Your task to perform on an android device: snooze an email in the gmail app Image 0: 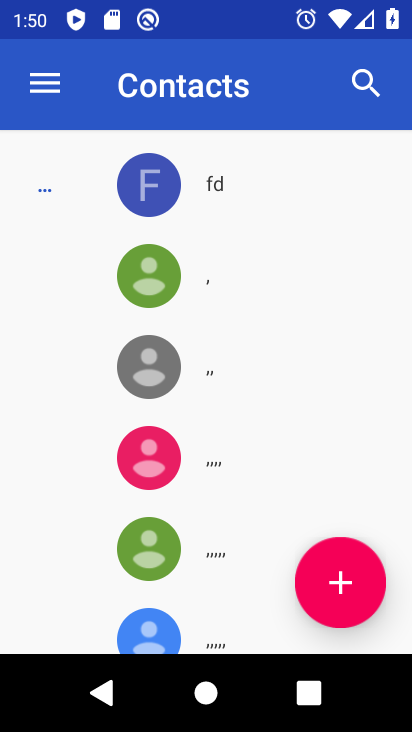
Step 0: press home button
Your task to perform on an android device: snooze an email in the gmail app Image 1: 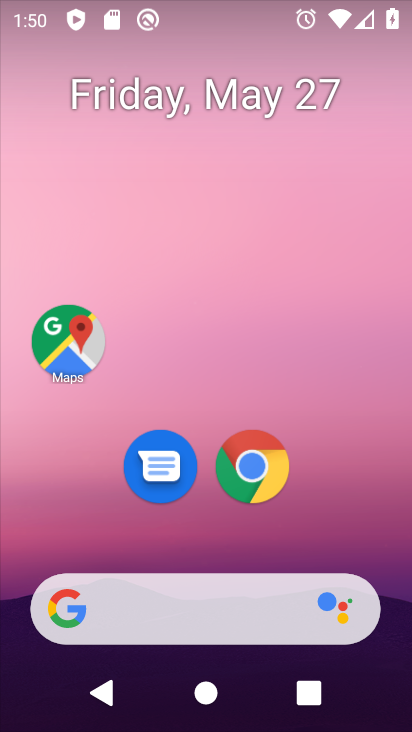
Step 1: drag from (335, 530) to (317, 100)
Your task to perform on an android device: snooze an email in the gmail app Image 2: 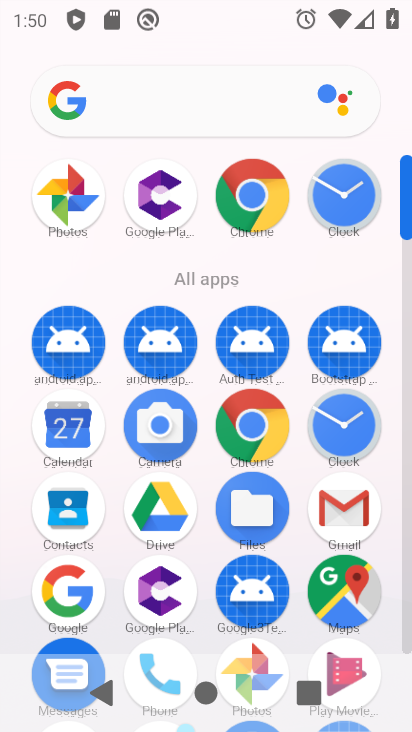
Step 2: click (335, 506)
Your task to perform on an android device: snooze an email in the gmail app Image 3: 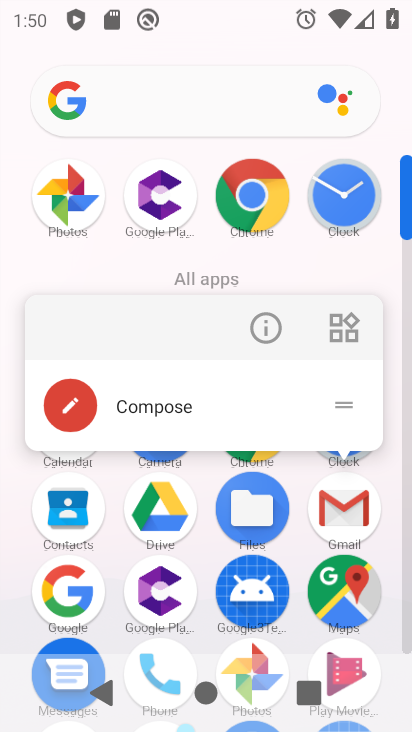
Step 3: click (348, 513)
Your task to perform on an android device: snooze an email in the gmail app Image 4: 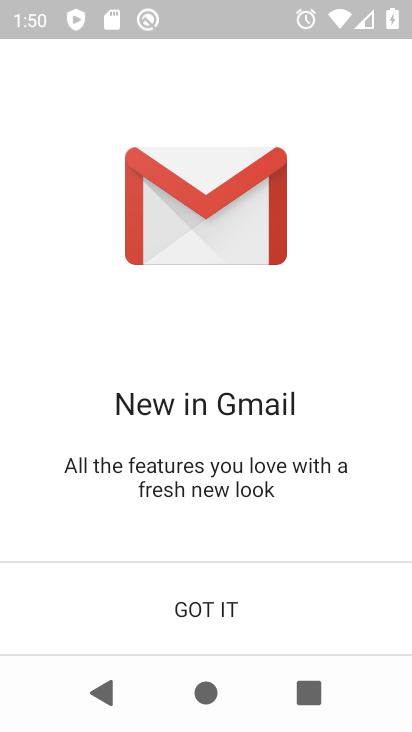
Step 4: click (207, 607)
Your task to perform on an android device: snooze an email in the gmail app Image 5: 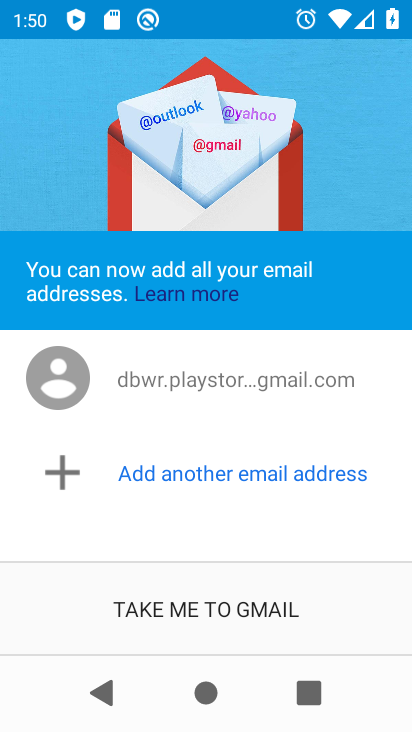
Step 5: click (207, 607)
Your task to perform on an android device: snooze an email in the gmail app Image 6: 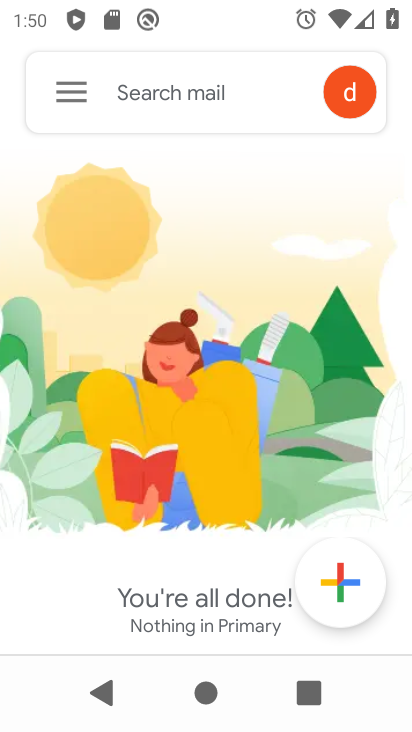
Step 6: click (70, 94)
Your task to perform on an android device: snooze an email in the gmail app Image 7: 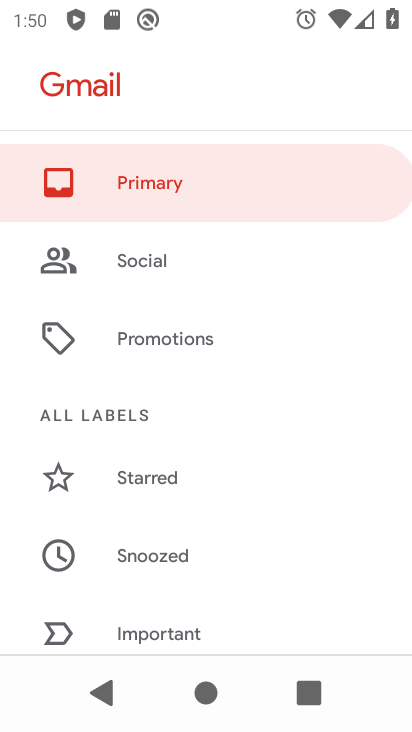
Step 7: click (214, 203)
Your task to perform on an android device: snooze an email in the gmail app Image 8: 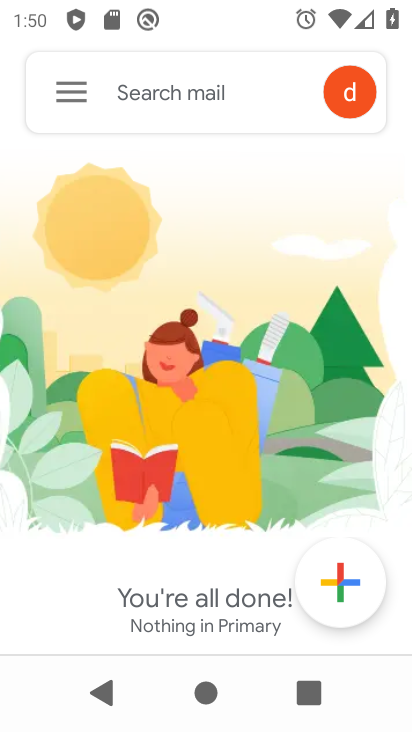
Step 8: task complete